Your task to perform on an android device: toggle translation in the chrome app Image 0: 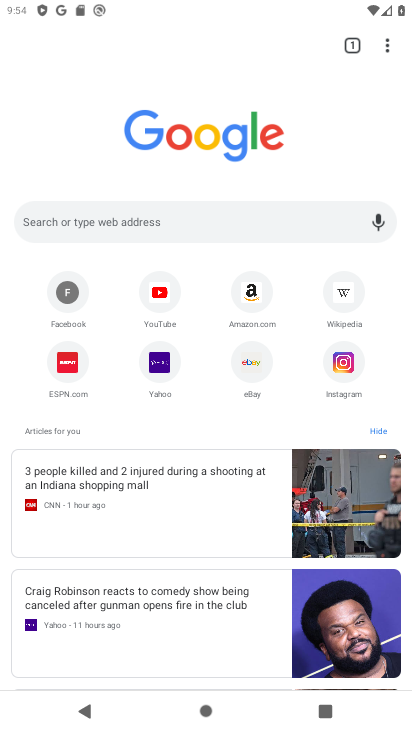
Step 0: press home button
Your task to perform on an android device: toggle translation in the chrome app Image 1: 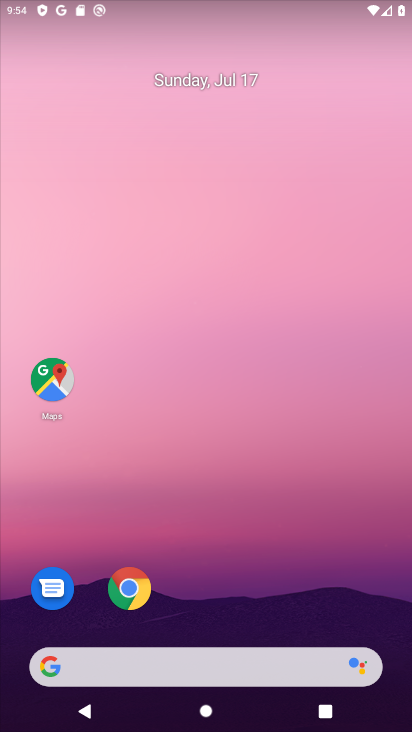
Step 1: drag from (192, 632) to (192, 40)
Your task to perform on an android device: toggle translation in the chrome app Image 2: 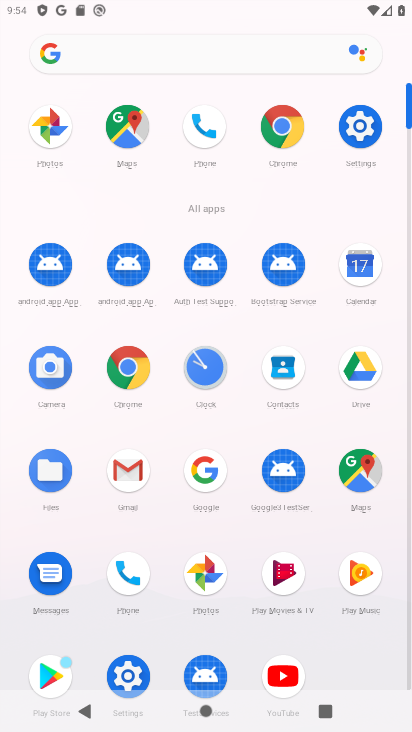
Step 2: click (127, 367)
Your task to perform on an android device: toggle translation in the chrome app Image 3: 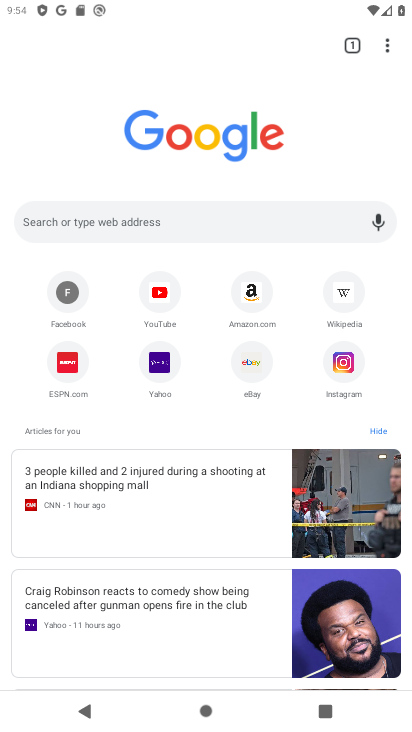
Step 3: drag from (387, 44) to (217, 383)
Your task to perform on an android device: toggle translation in the chrome app Image 4: 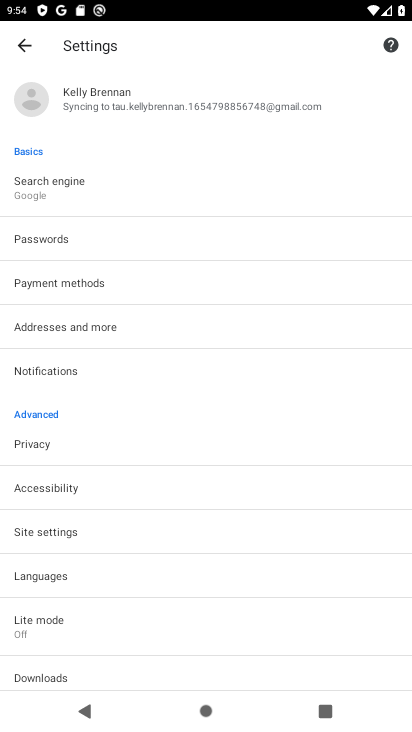
Step 4: click (59, 579)
Your task to perform on an android device: toggle translation in the chrome app Image 5: 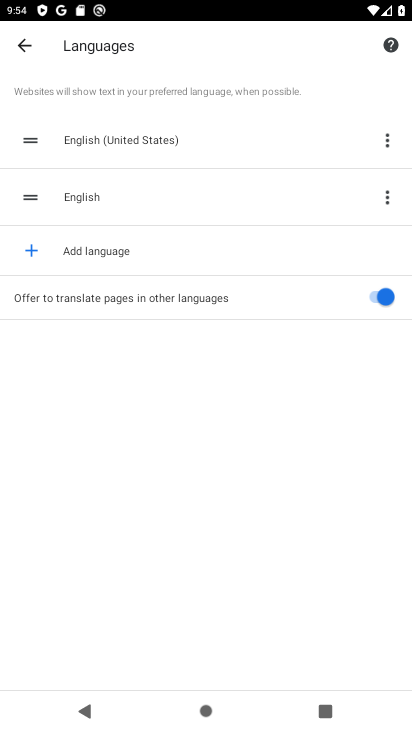
Step 5: click (382, 297)
Your task to perform on an android device: toggle translation in the chrome app Image 6: 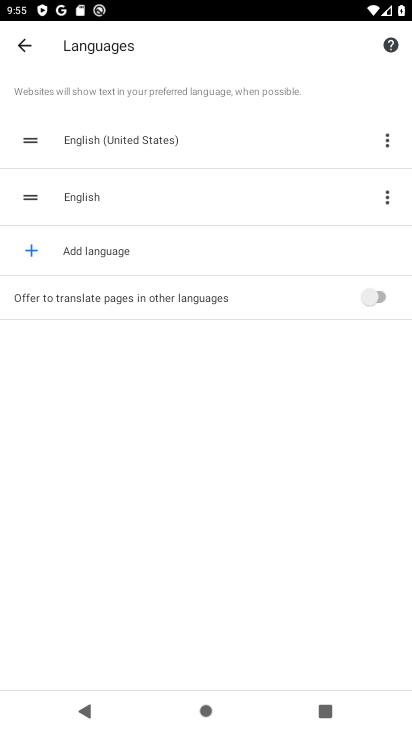
Step 6: task complete